Your task to perform on an android device: change the clock style Image 0: 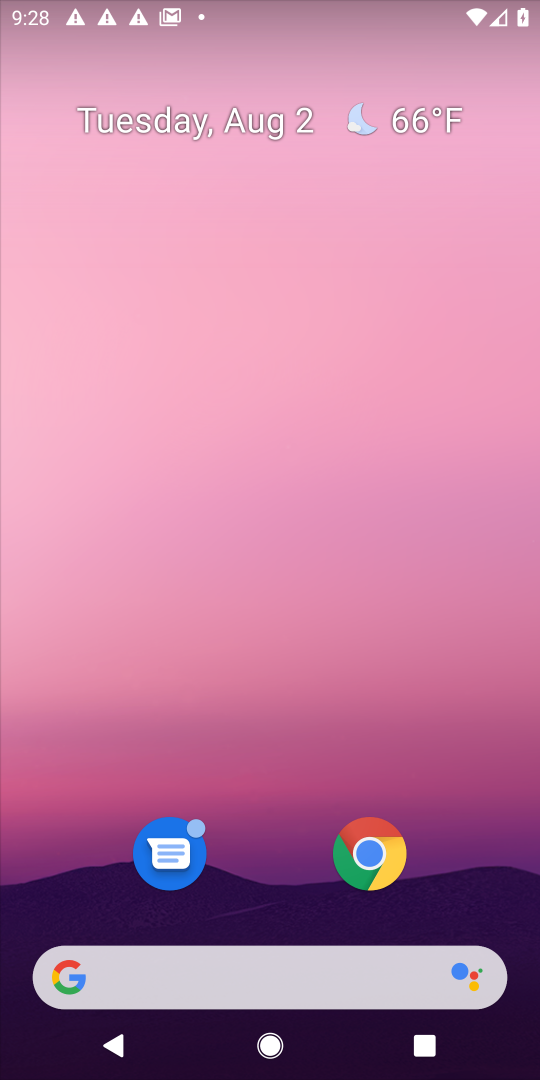
Step 0: drag from (327, 949) to (283, 19)
Your task to perform on an android device: change the clock style Image 1: 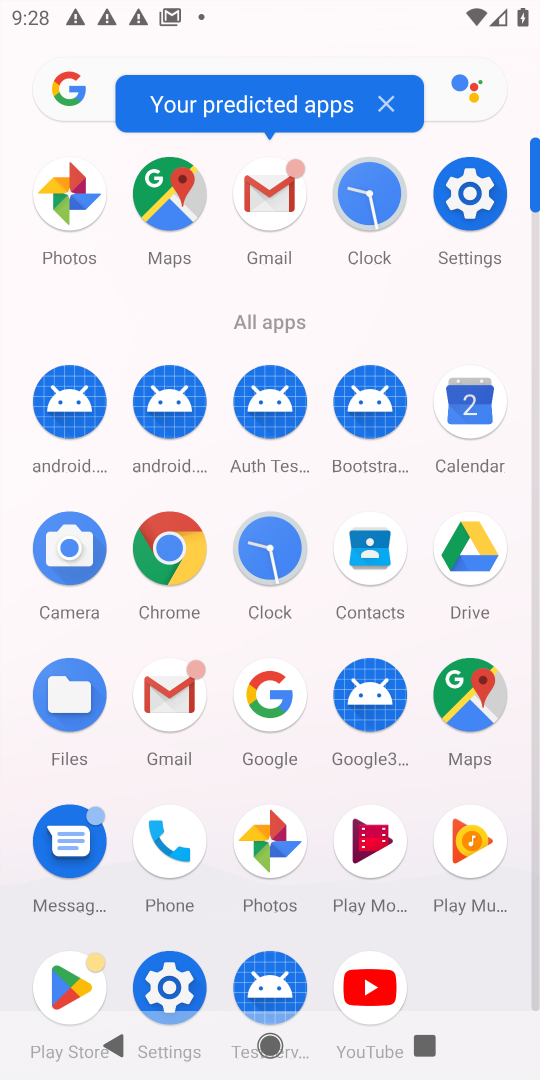
Step 1: click (253, 561)
Your task to perform on an android device: change the clock style Image 2: 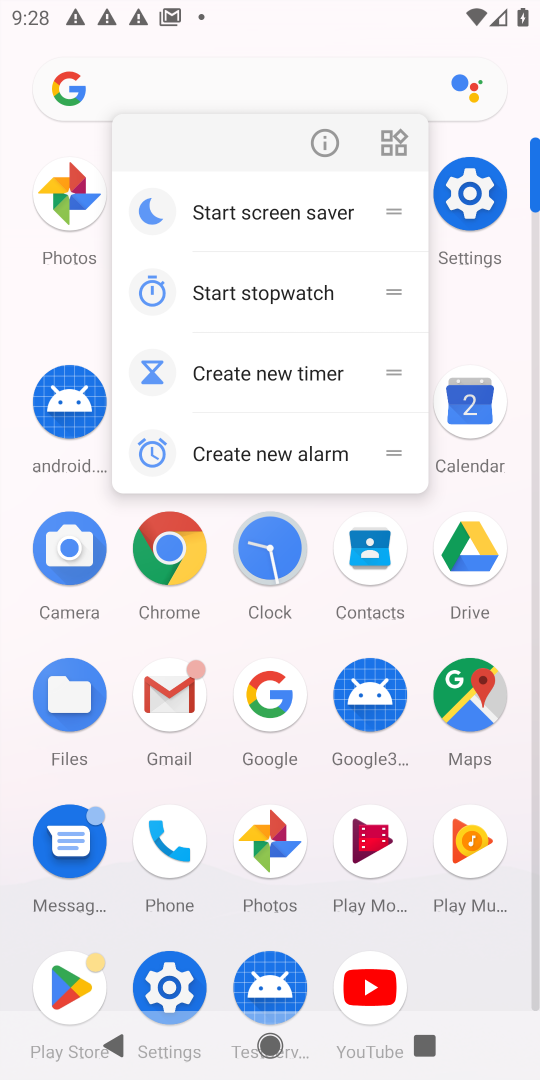
Step 2: click (265, 556)
Your task to perform on an android device: change the clock style Image 3: 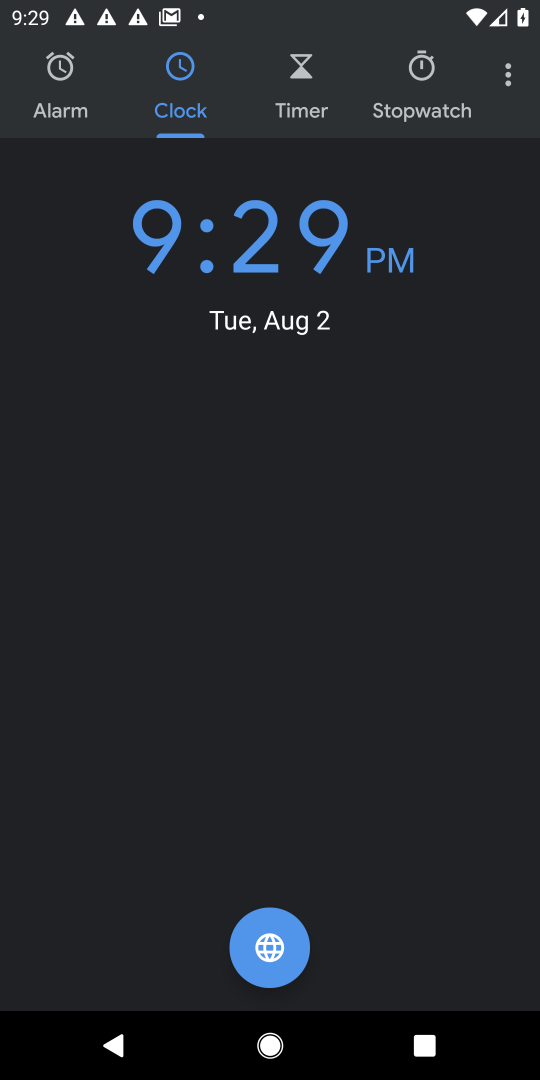
Step 3: click (495, 85)
Your task to perform on an android device: change the clock style Image 4: 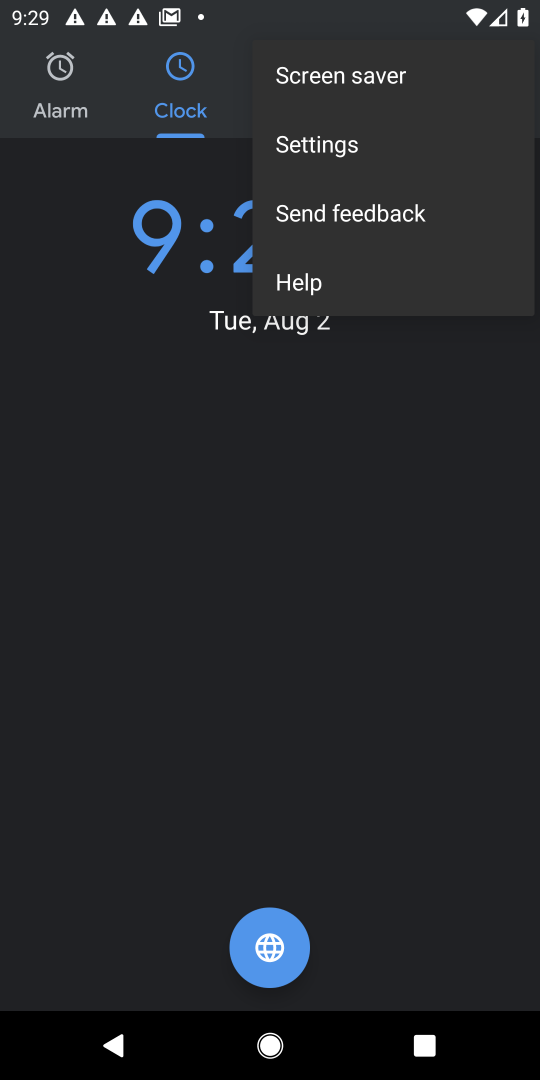
Step 4: click (345, 134)
Your task to perform on an android device: change the clock style Image 5: 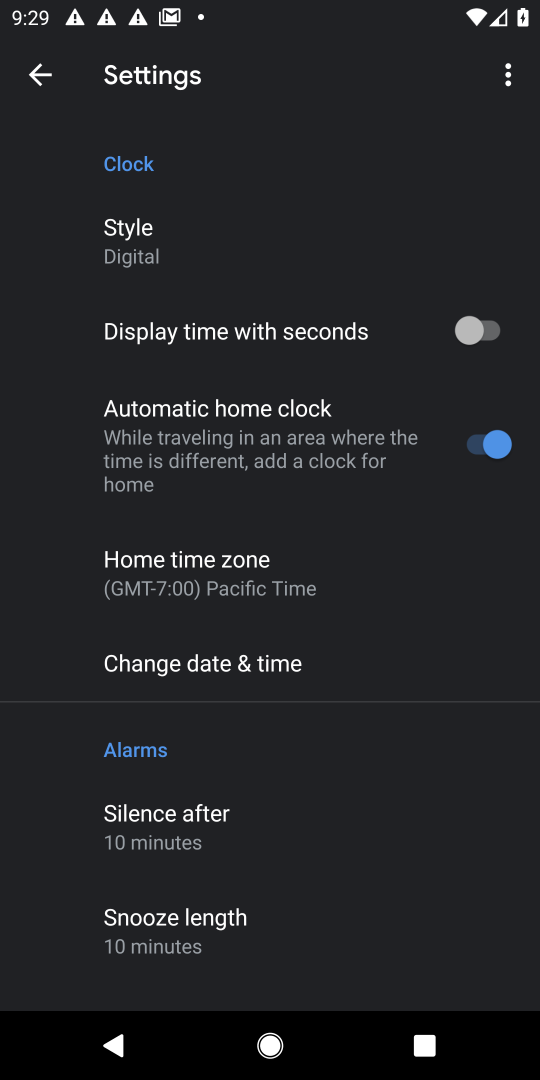
Step 5: click (172, 224)
Your task to perform on an android device: change the clock style Image 6: 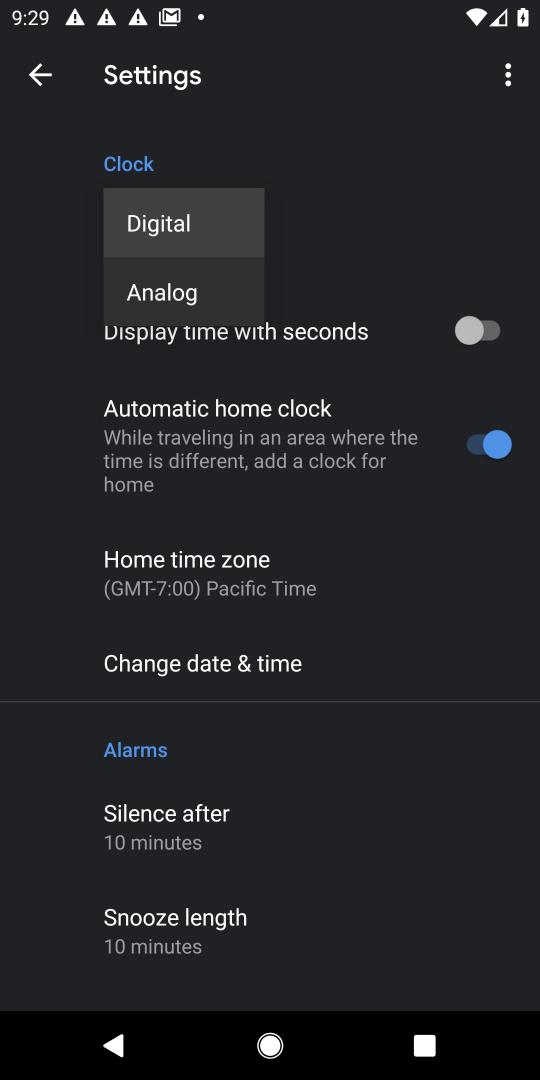
Step 6: click (176, 274)
Your task to perform on an android device: change the clock style Image 7: 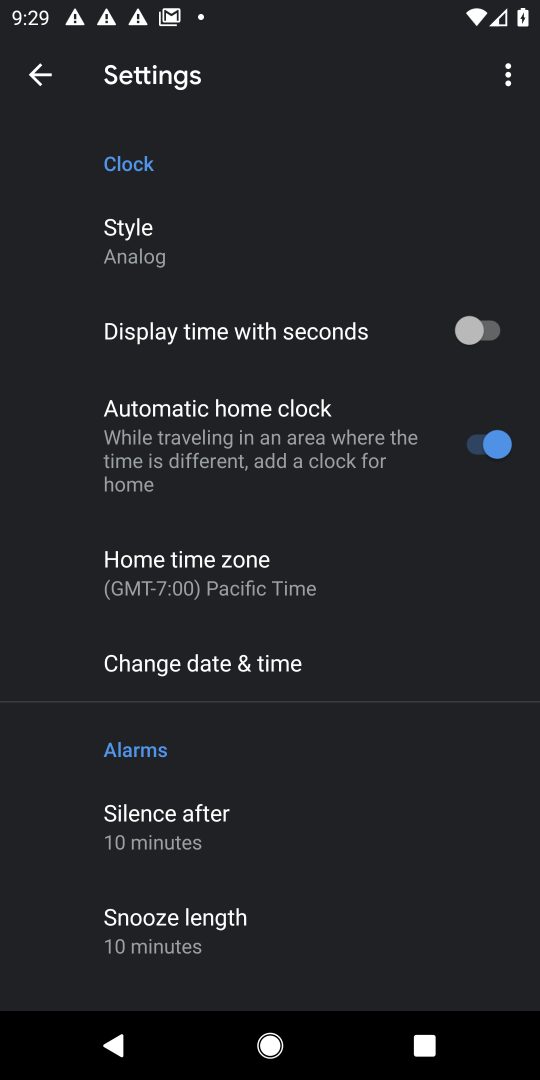
Step 7: task complete